Your task to perform on an android device: toggle location history Image 0: 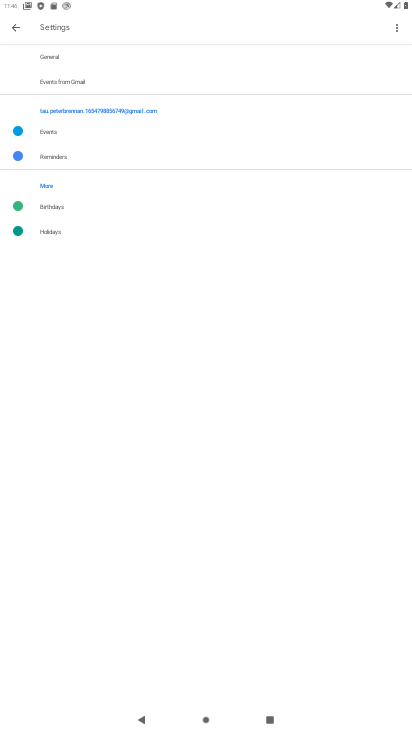
Step 0: press home button
Your task to perform on an android device: toggle location history Image 1: 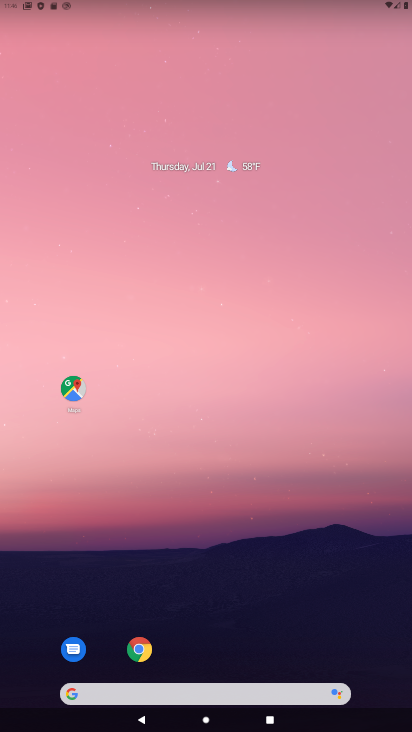
Step 1: drag from (197, 650) to (259, 40)
Your task to perform on an android device: toggle location history Image 2: 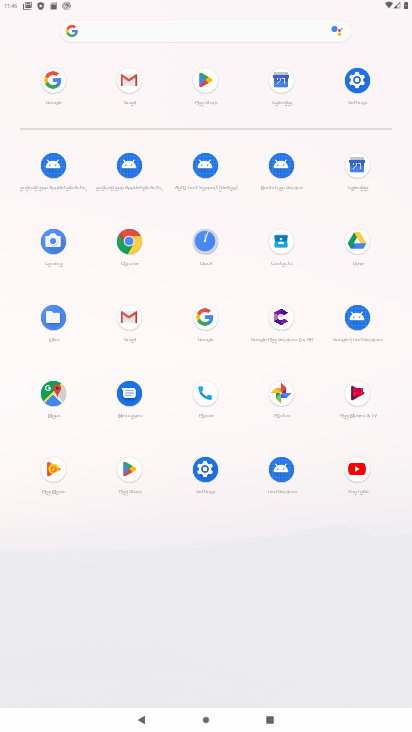
Step 2: click (360, 83)
Your task to perform on an android device: toggle location history Image 3: 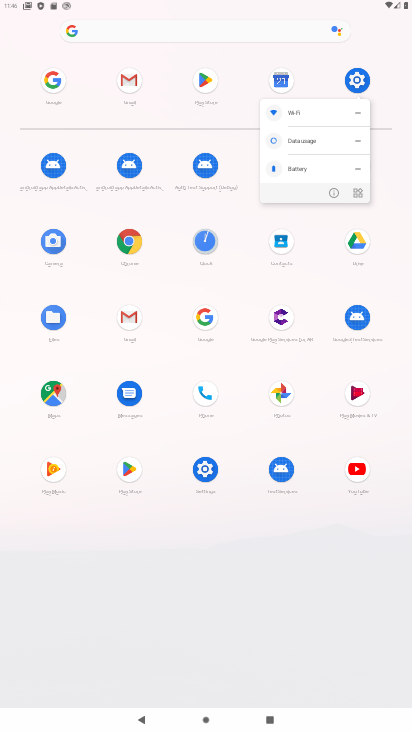
Step 3: click (354, 81)
Your task to perform on an android device: toggle location history Image 4: 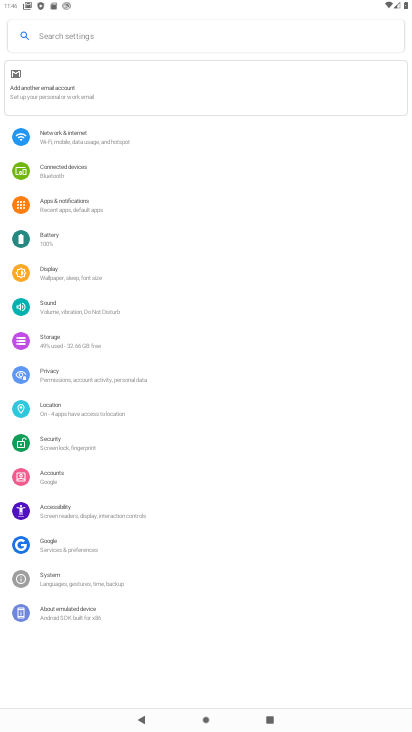
Step 4: click (73, 403)
Your task to perform on an android device: toggle location history Image 5: 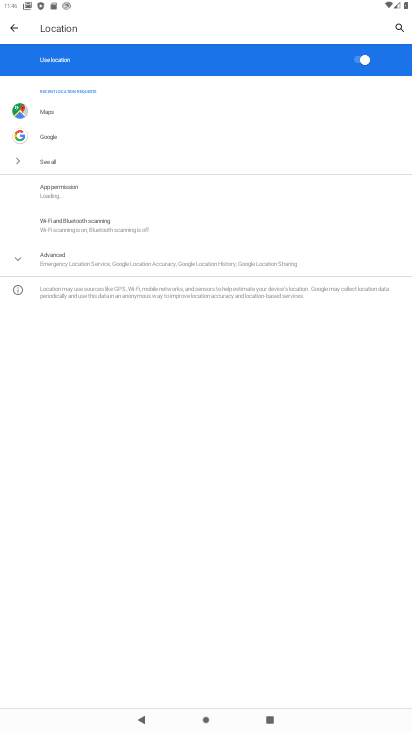
Step 5: click (43, 252)
Your task to perform on an android device: toggle location history Image 6: 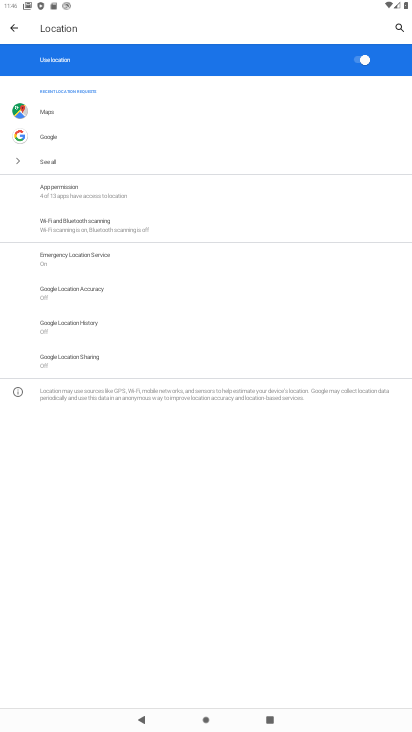
Step 6: click (94, 325)
Your task to perform on an android device: toggle location history Image 7: 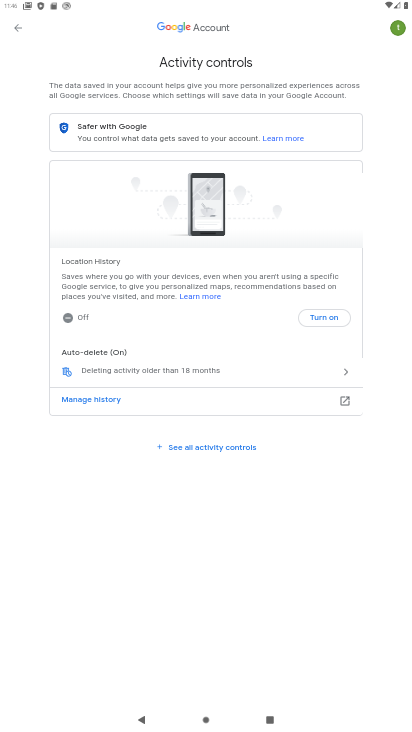
Step 7: click (328, 318)
Your task to perform on an android device: toggle location history Image 8: 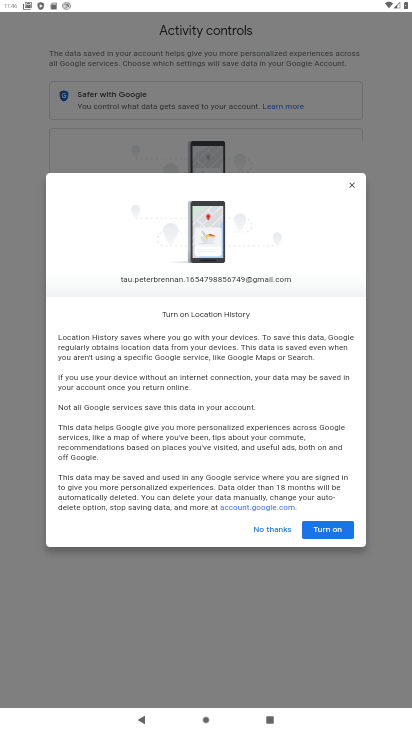
Step 8: click (312, 534)
Your task to perform on an android device: toggle location history Image 9: 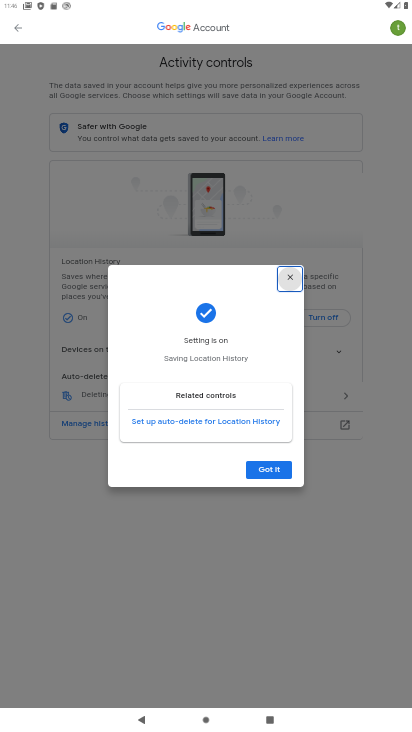
Step 9: click (263, 469)
Your task to perform on an android device: toggle location history Image 10: 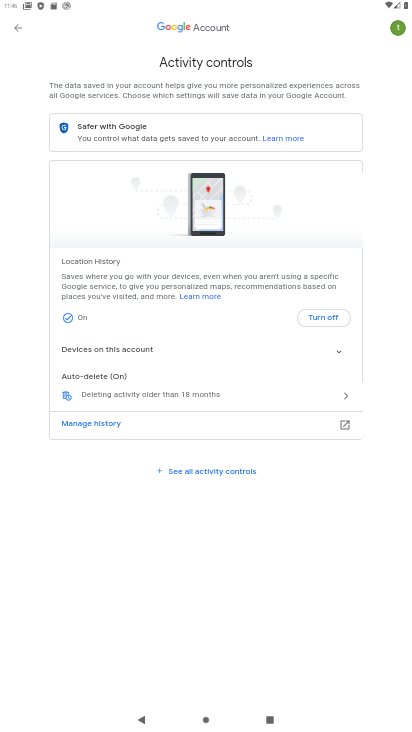
Step 10: task complete